Your task to perform on an android device: What's the weather going to be tomorrow? Image 0: 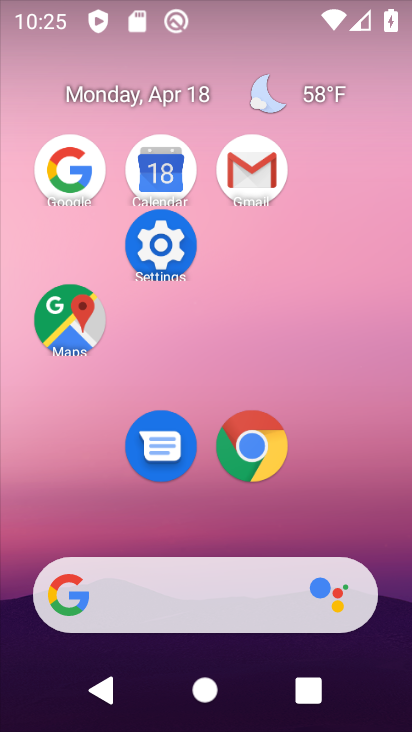
Step 0: click (74, 179)
Your task to perform on an android device: What's the weather going to be tomorrow? Image 1: 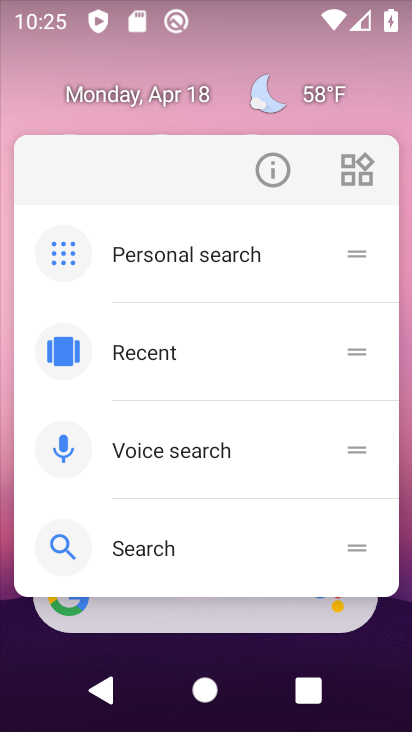
Step 1: click (14, 98)
Your task to perform on an android device: What's the weather going to be tomorrow? Image 2: 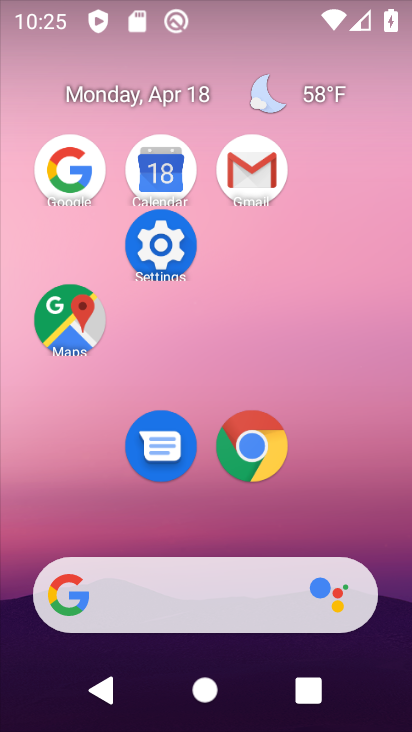
Step 2: click (83, 156)
Your task to perform on an android device: What's the weather going to be tomorrow? Image 3: 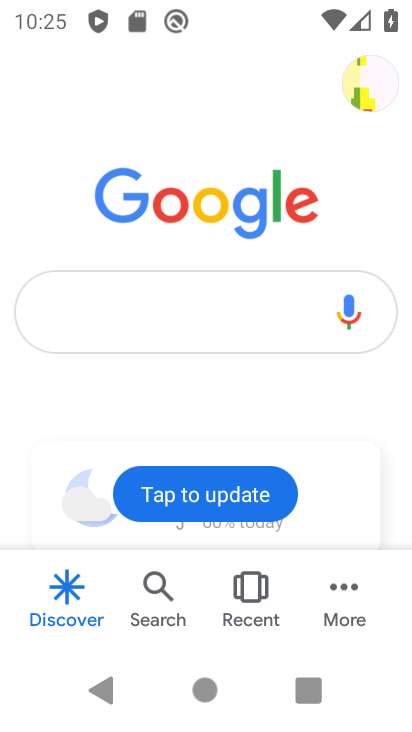
Step 3: drag from (328, 501) to (319, 144)
Your task to perform on an android device: What's the weather going to be tomorrow? Image 4: 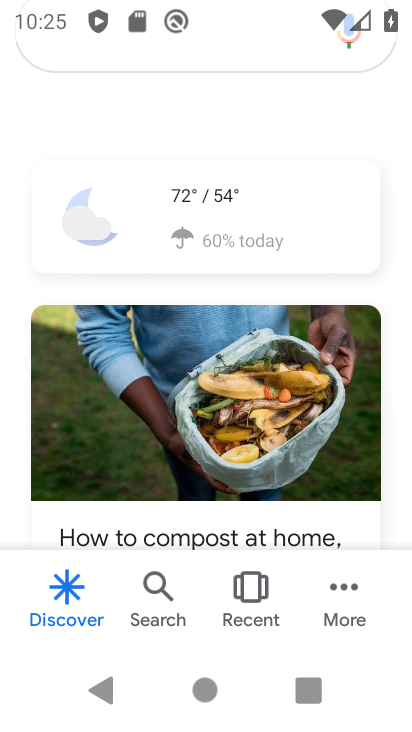
Step 4: click (214, 199)
Your task to perform on an android device: What's the weather going to be tomorrow? Image 5: 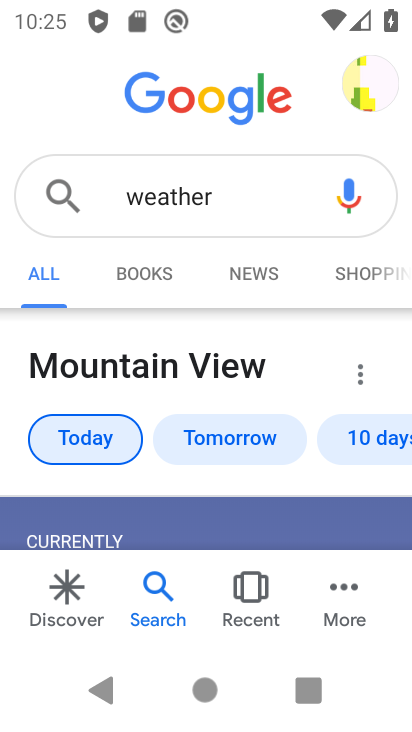
Step 5: click (229, 434)
Your task to perform on an android device: What's the weather going to be tomorrow? Image 6: 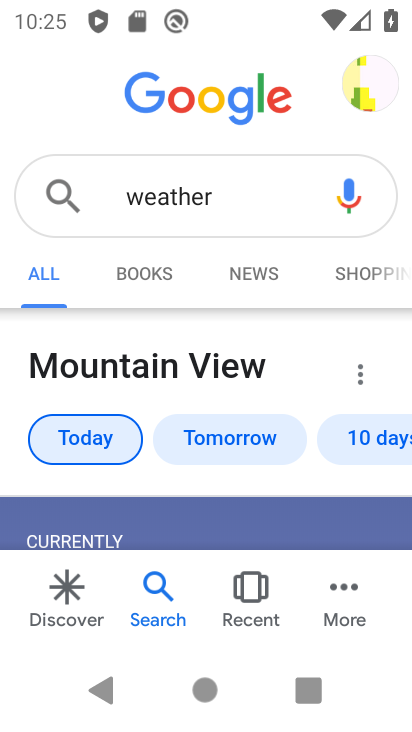
Step 6: drag from (232, 480) to (250, 142)
Your task to perform on an android device: What's the weather going to be tomorrow? Image 7: 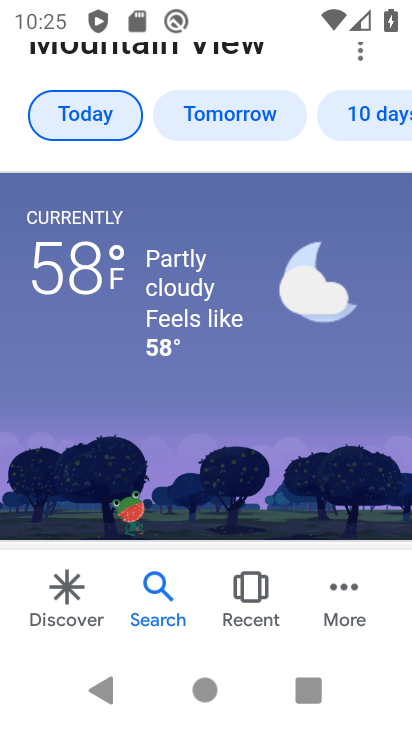
Step 7: drag from (174, 450) to (251, 50)
Your task to perform on an android device: What's the weather going to be tomorrow? Image 8: 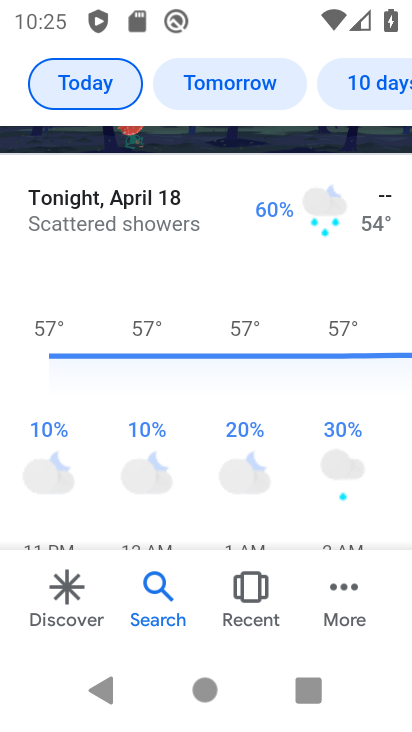
Step 8: drag from (184, 399) to (239, 83)
Your task to perform on an android device: What's the weather going to be tomorrow? Image 9: 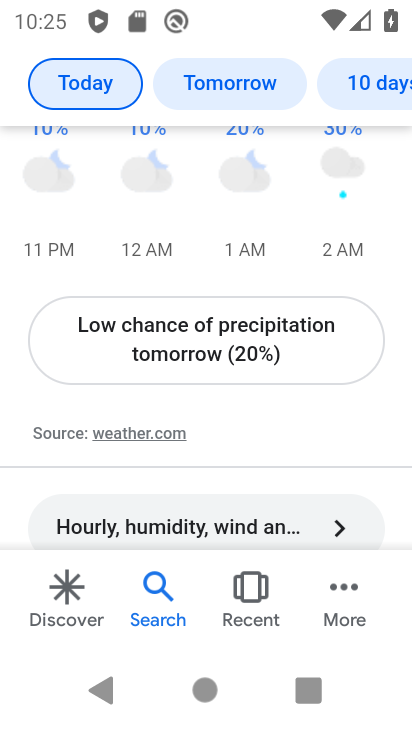
Step 9: drag from (200, 495) to (226, 73)
Your task to perform on an android device: What's the weather going to be tomorrow? Image 10: 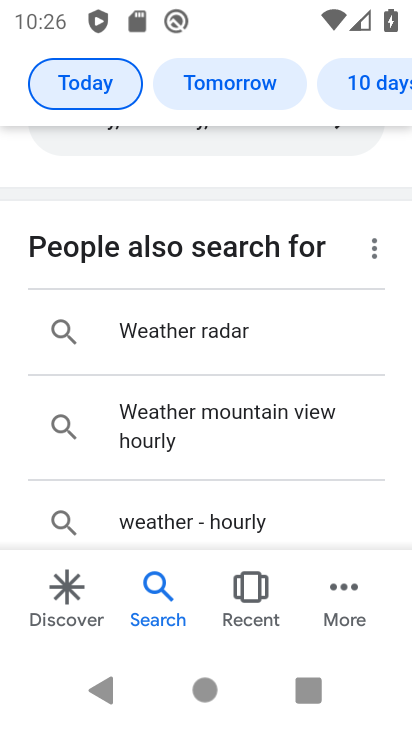
Step 10: drag from (208, 473) to (242, 83)
Your task to perform on an android device: What's the weather going to be tomorrow? Image 11: 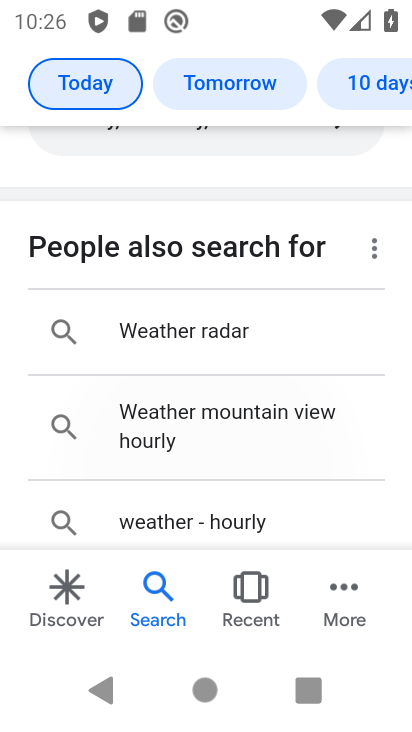
Step 11: drag from (251, 169) to (257, 366)
Your task to perform on an android device: What's the weather going to be tomorrow? Image 12: 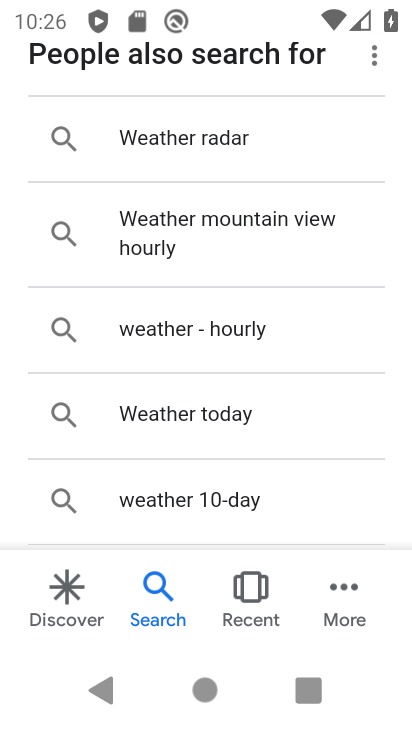
Step 12: drag from (234, 132) to (251, 603)
Your task to perform on an android device: What's the weather going to be tomorrow? Image 13: 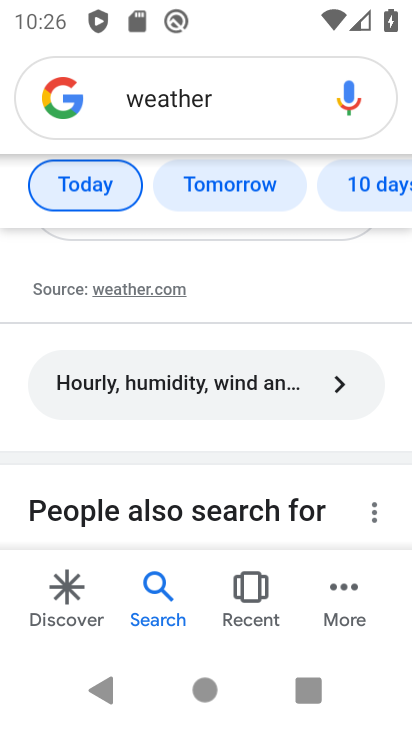
Step 13: drag from (264, 519) to (266, 106)
Your task to perform on an android device: What's the weather going to be tomorrow? Image 14: 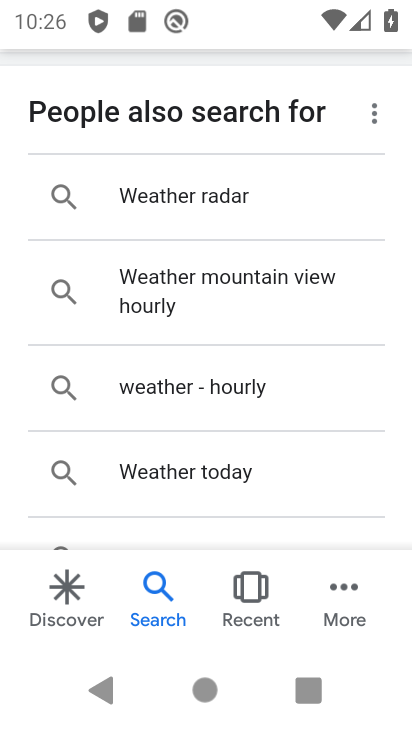
Step 14: drag from (307, 470) to (322, 179)
Your task to perform on an android device: What's the weather going to be tomorrow? Image 15: 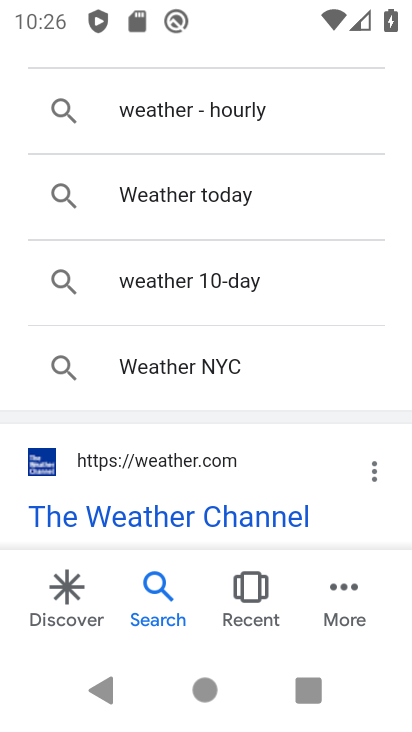
Step 15: drag from (292, 219) to (302, 445)
Your task to perform on an android device: What's the weather going to be tomorrow? Image 16: 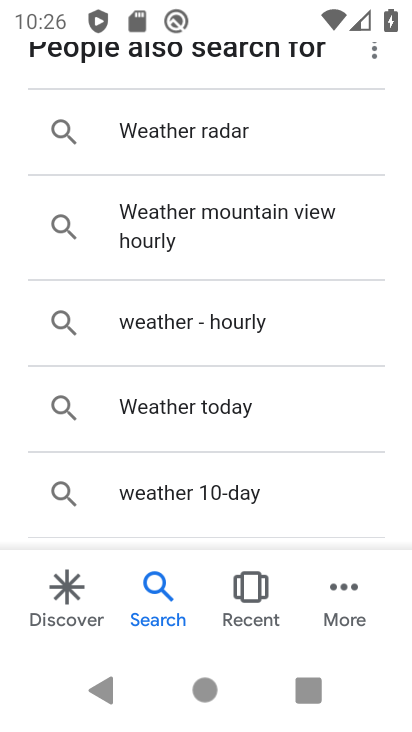
Step 16: drag from (305, 147) to (310, 565)
Your task to perform on an android device: What's the weather going to be tomorrow? Image 17: 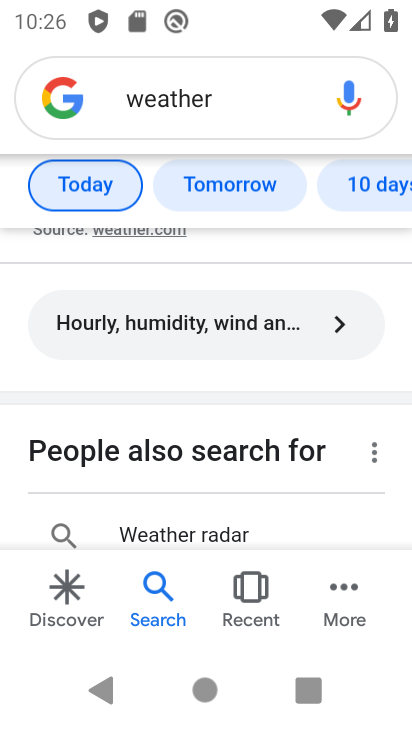
Step 17: drag from (218, 211) to (206, 409)
Your task to perform on an android device: What's the weather going to be tomorrow? Image 18: 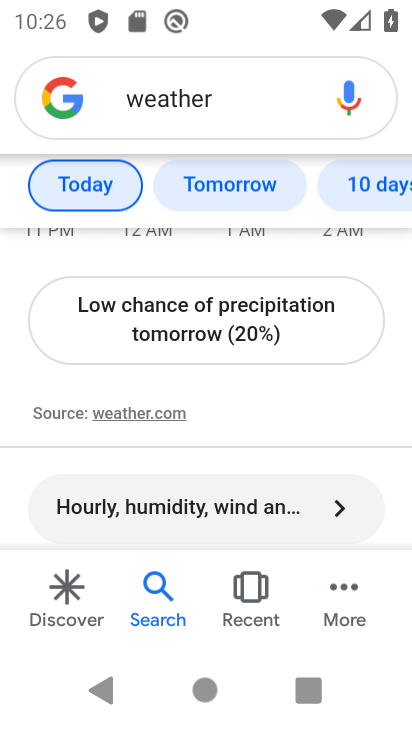
Step 18: click (205, 191)
Your task to perform on an android device: What's the weather going to be tomorrow? Image 19: 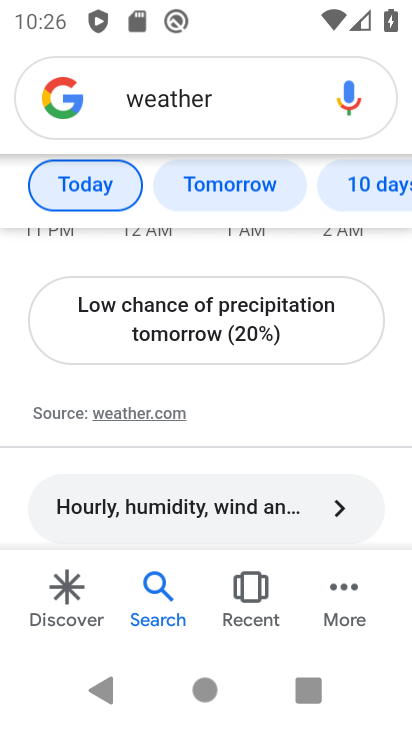
Step 19: click (248, 183)
Your task to perform on an android device: What's the weather going to be tomorrow? Image 20: 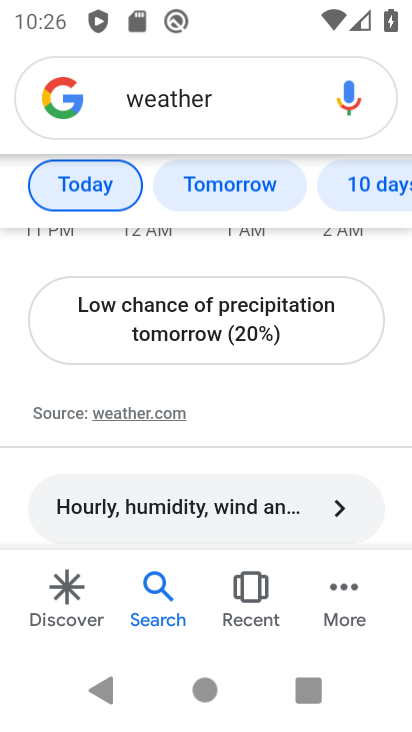
Step 20: task complete